Your task to perform on an android device: Go to eBay Image 0: 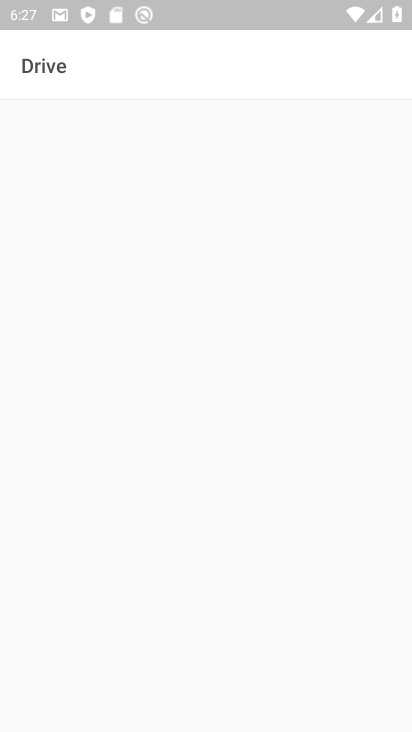
Step 0: press home button
Your task to perform on an android device: Go to eBay Image 1: 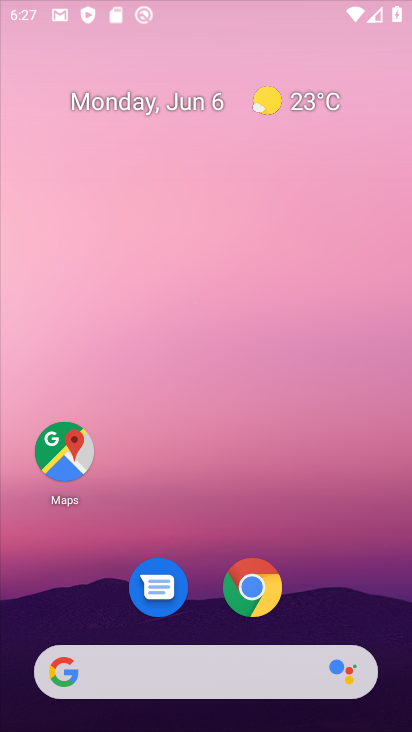
Step 1: drag from (390, 671) to (259, 9)
Your task to perform on an android device: Go to eBay Image 2: 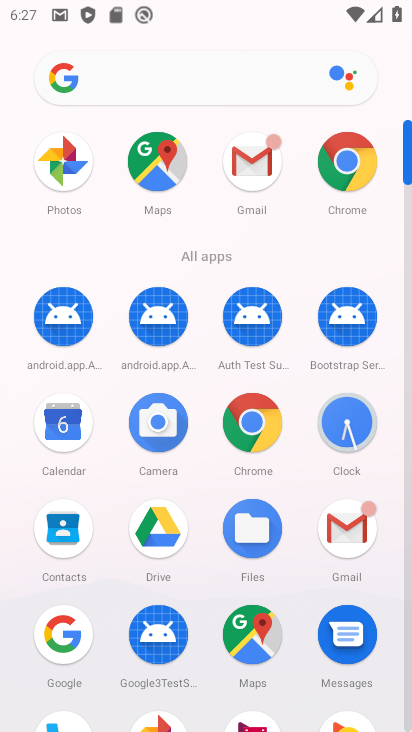
Step 2: click (73, 632)
Your task to perform on an android device: Go to eBay Image 3: 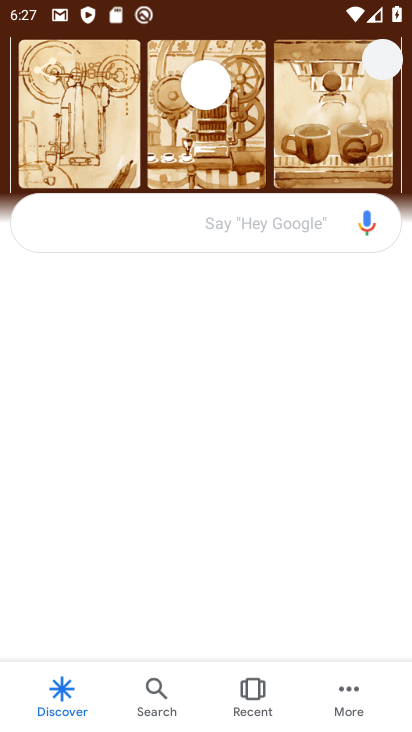
Step 3: click (124, 220)
Your task to perform on an android device: Go to eBay Image 4: 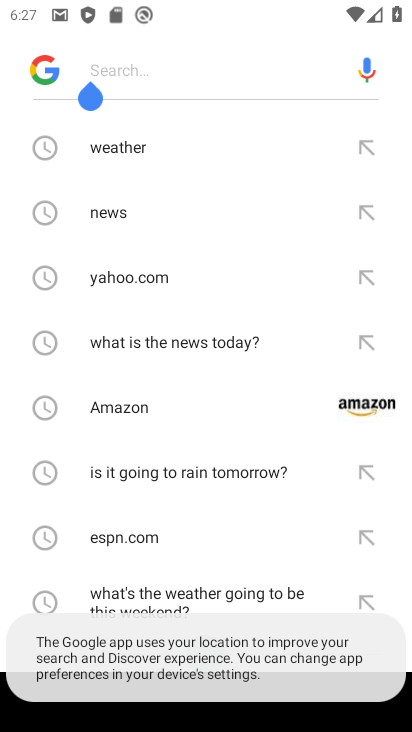
Step 4: drag from (143, 579) to (121, 175)
Your task to perform on an android device: Go to eBay Image 5: 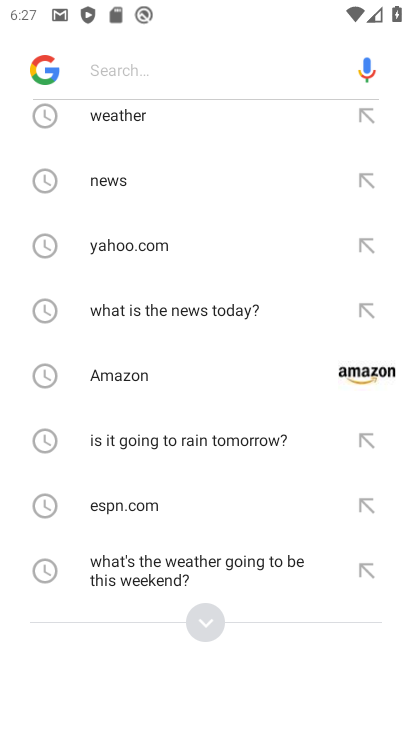
Step 5: click (220, 622)
Your task to perform on an android device: Go to eBay Image 6: 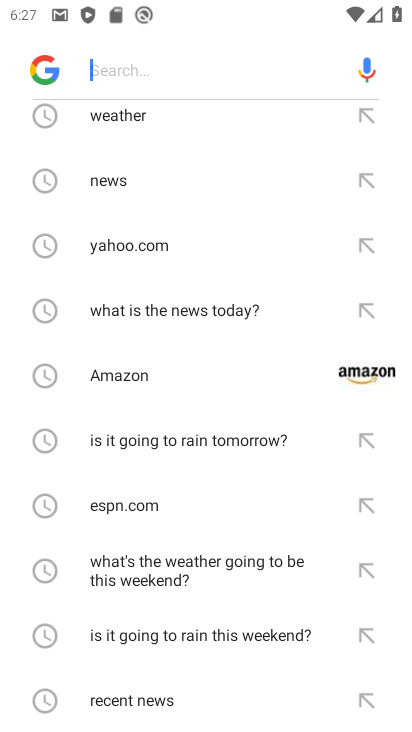
Step 6: drag from (189, 681) to (207, 127)
Your task to perform on an android device: Go to eBay Image 7: 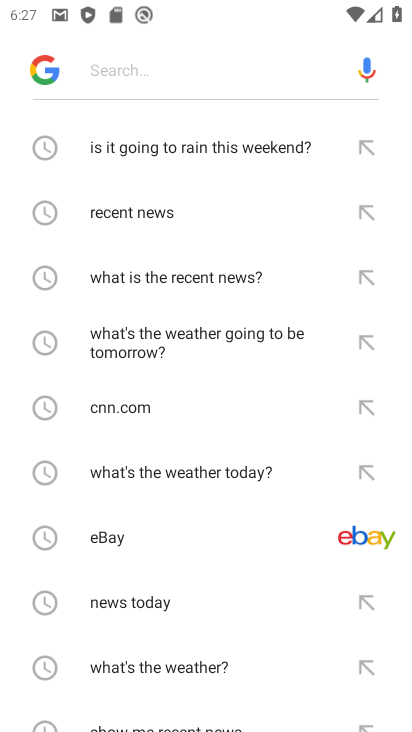
Step 7: click (75, 533)
Your task to perform on an android device: Go to eBay Image 8: 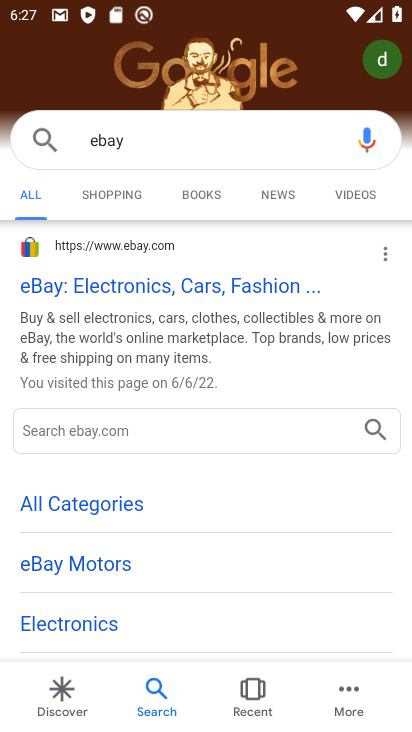
Step 8: task complete